Your task to perform on an android device: change alarm snooze length Image 0: 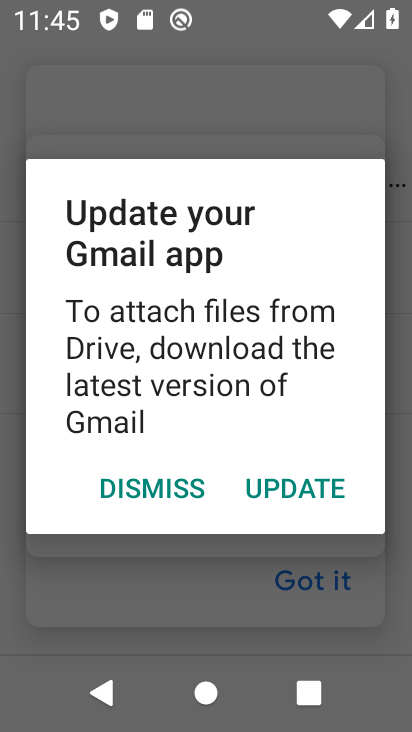
Step 0: press home button
Your task to perform on an android device: change alarm snooze length Image 1: 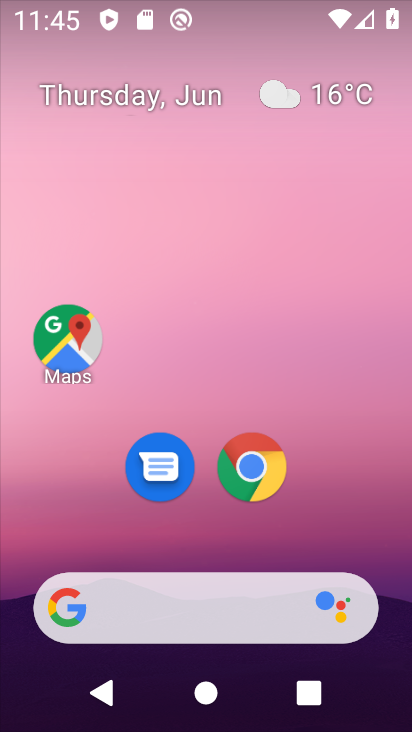
Step 1: drag from (405, 603) to (347, 133)
Your task to perform on an android device: change alarm snooze length Image 2: 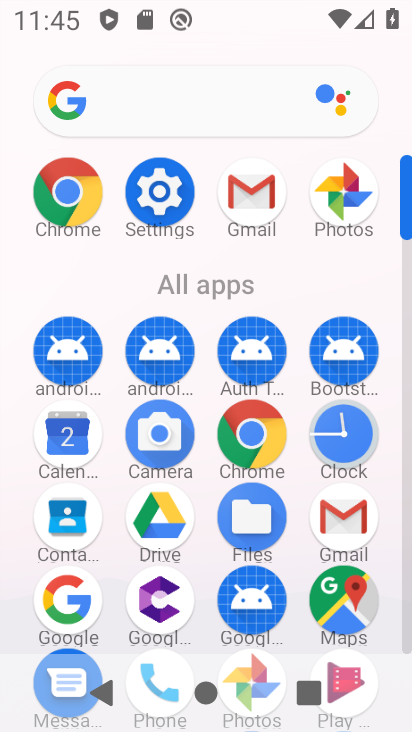
Step 2: click (408, 606)
Your task to perform on an android device: change alarm snooze length Image 3: 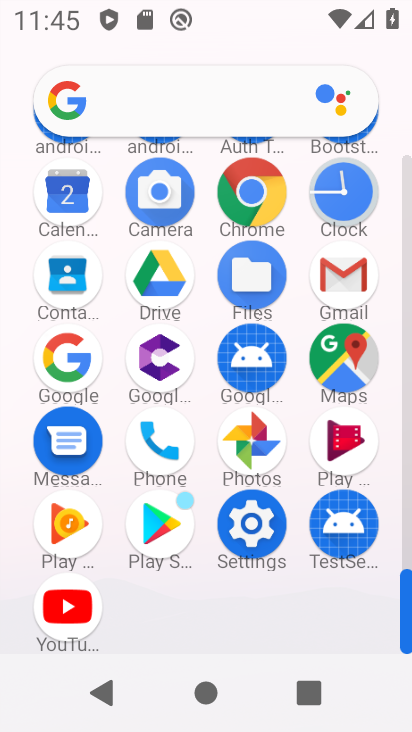
Step 3: click (342, 193)
Your task to perform on an android device: change alarm snooze length Image 4: 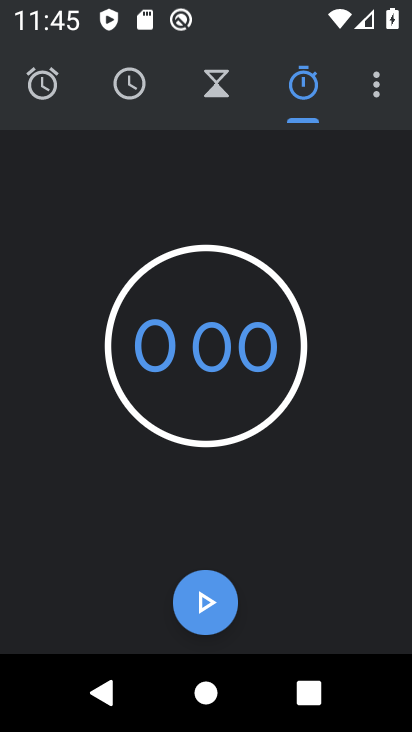
Step 4: click (375, 88)
Your task to perform on an android device: change alarm snooze length Image 5: 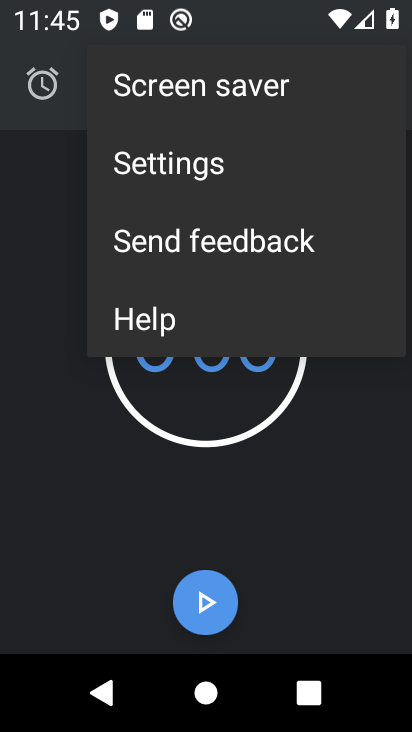
Step 5: click (138, 165)
Your task to perform on an android device: change alarm snooze length Image 6: 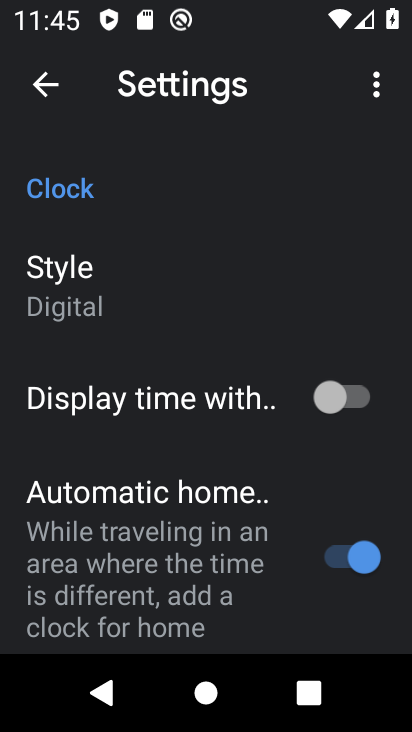
Step 6: drag from (236, 529) to (232, 164)
Your task to perform on an android device: change alarm snooze length Image 7: 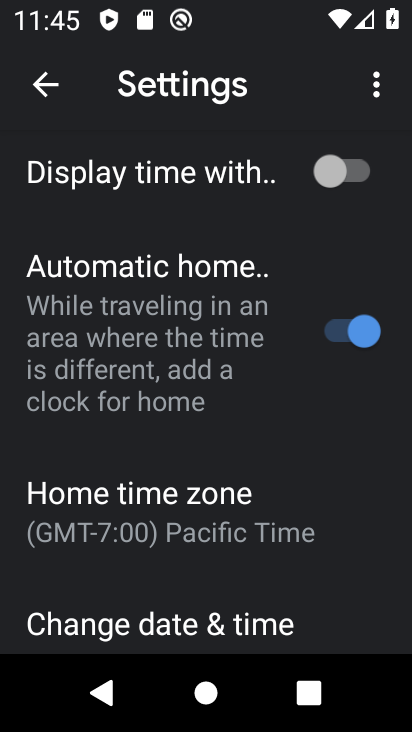
Step 7: drag from (273, 580) to (260, 153)
Your task to perform on an android device: change alarm snooze length Image 8: 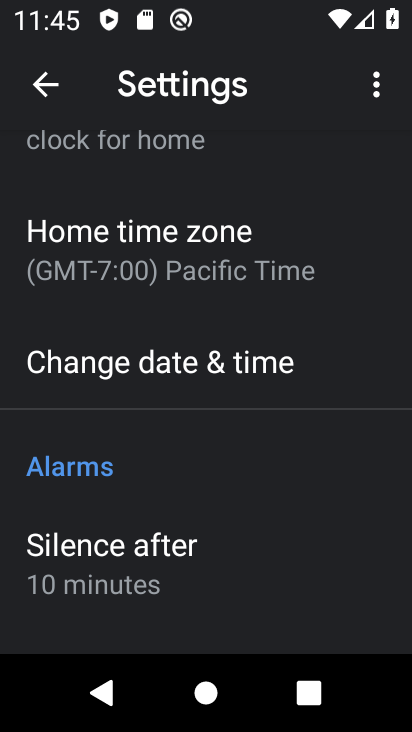
Step 8: drag from (262, 577) to (264, 124)
Your task to perform on an android device: change alarm snooze length Image 9: 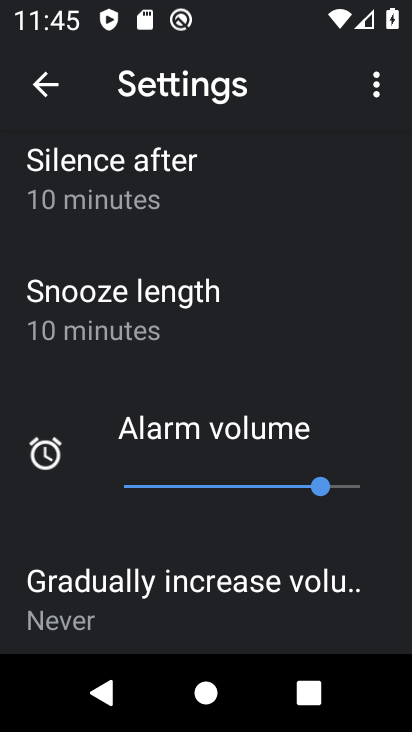
Step 9: click (109, 300)
Your task to perform on an android device: change alarm snooze length Image 10: 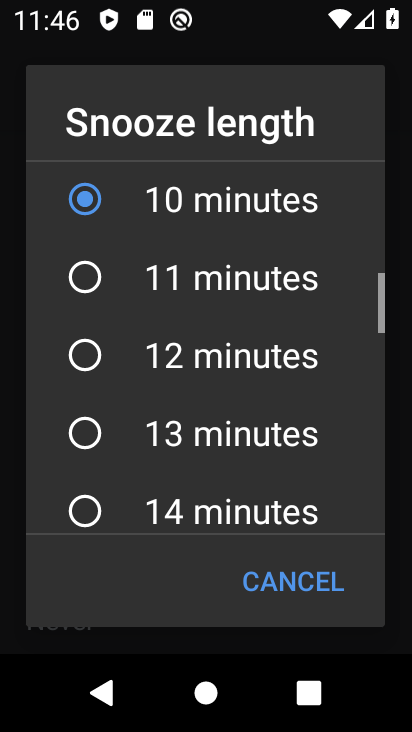
Step 10: drag from (101, 476) to (136, 239)
Your task to perform on an android device: change alarm snooze length Image 11: 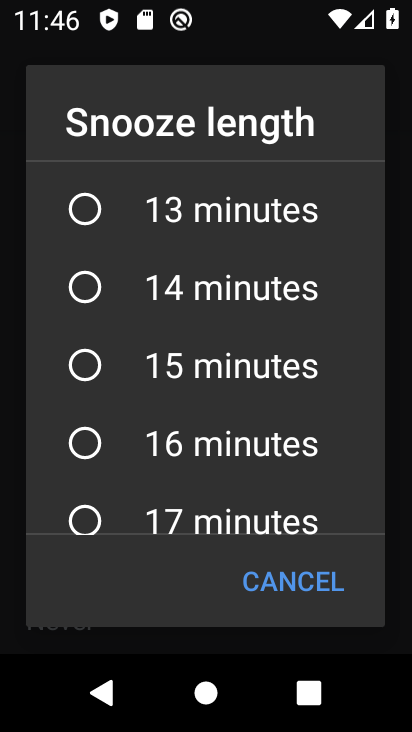
Step 11: click (91, 363)
Your task to perform on an android device: change alarm snooze length Image 12: 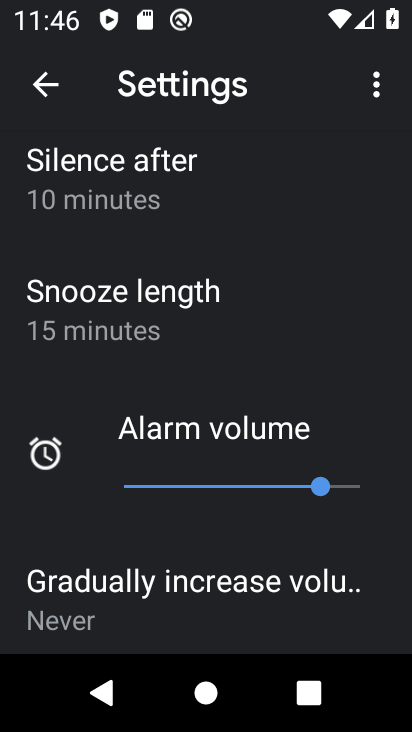
Step 12: task complete